Your task to perform on an android device: Show me recent news Image 0: 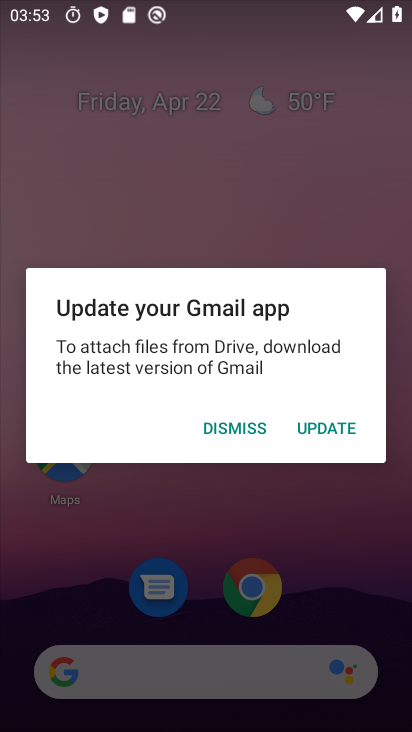
Step 0: press home button
Your task to perform on an android device: Show me recent news Image 1: 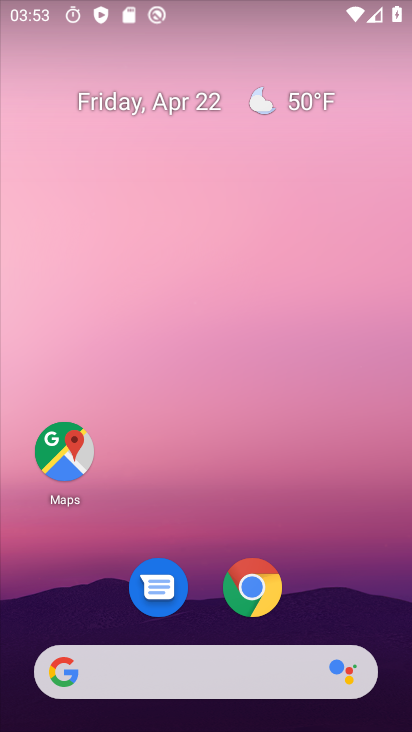
Step 1: task complete